Your task to perform on an android device: Open the clock app Image 0: 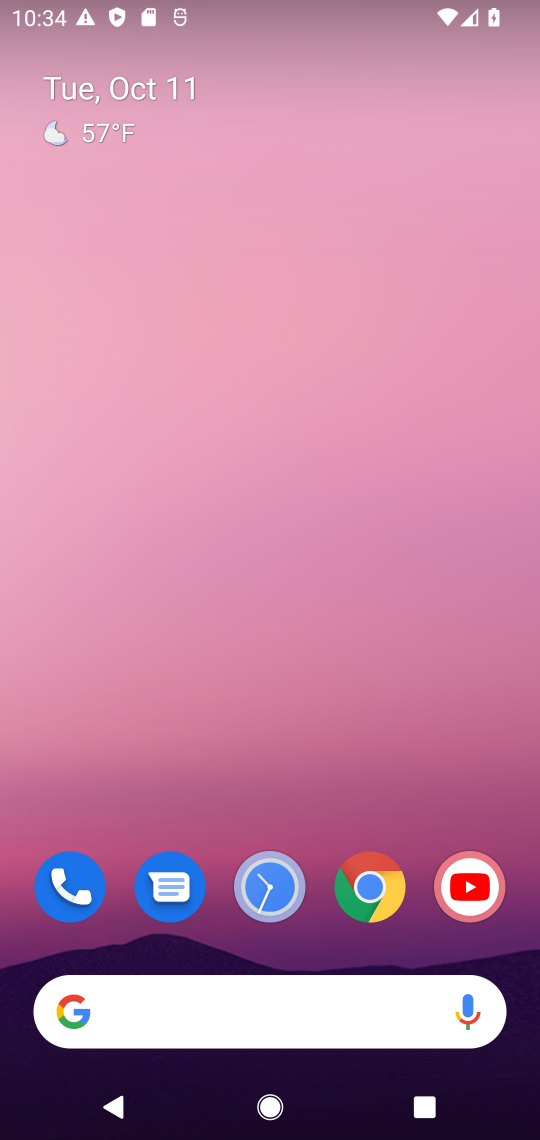
Step 0: press home button
Your task to perform on an android device: Open the clock app Image 1: 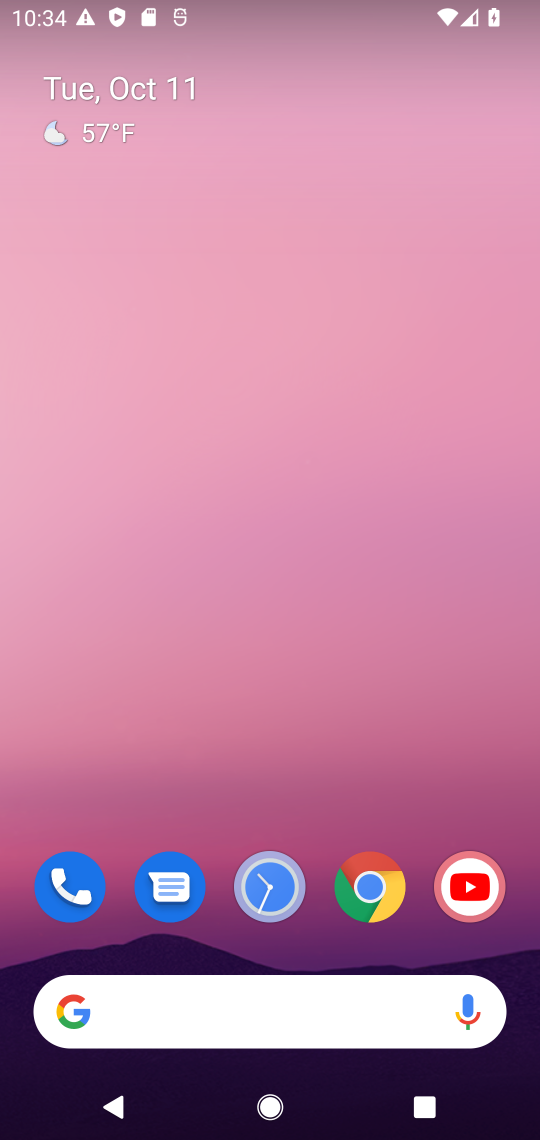
Step 1: click (378, 1023)
Your task to perform on an android device: Open the clock app Image 2: 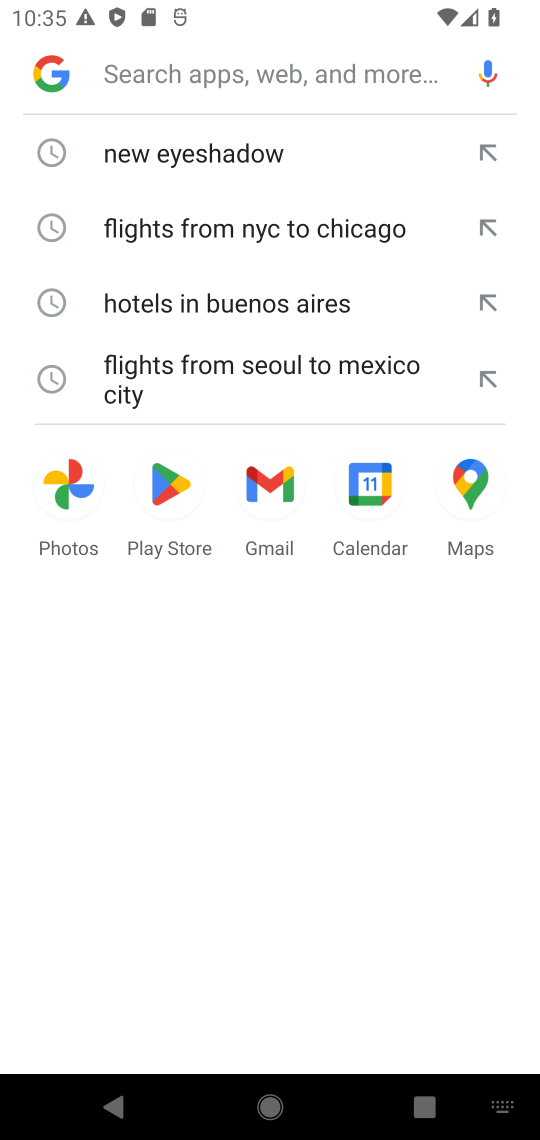
Step 2: press home button
Your task to perform on an android device: Open the clock app Image 3: 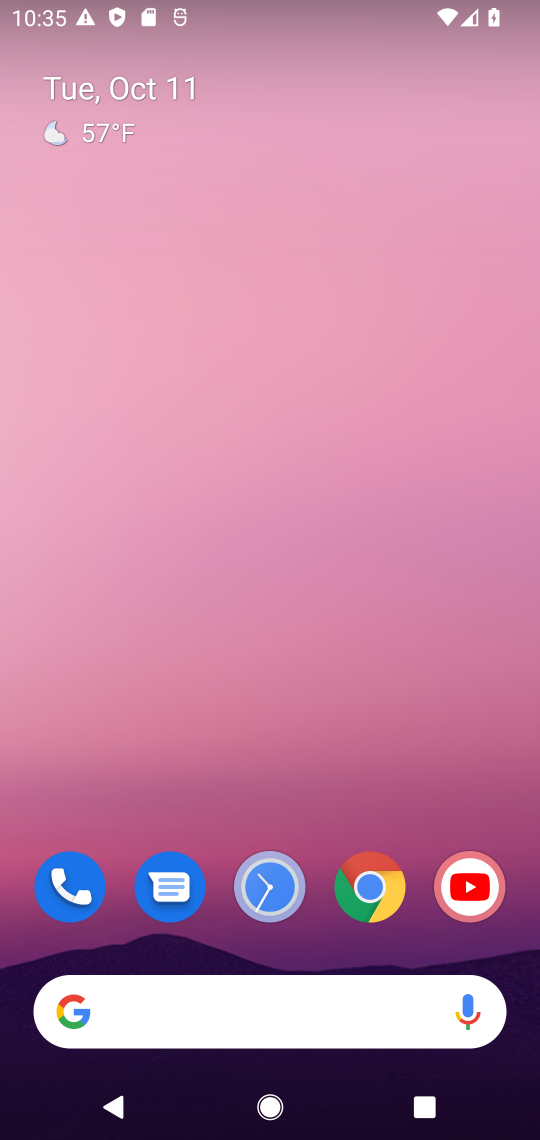
Step 3: drag from (490, 739) to (486, 74)
Your task to perform on an android device: Open the clock app Image 4: 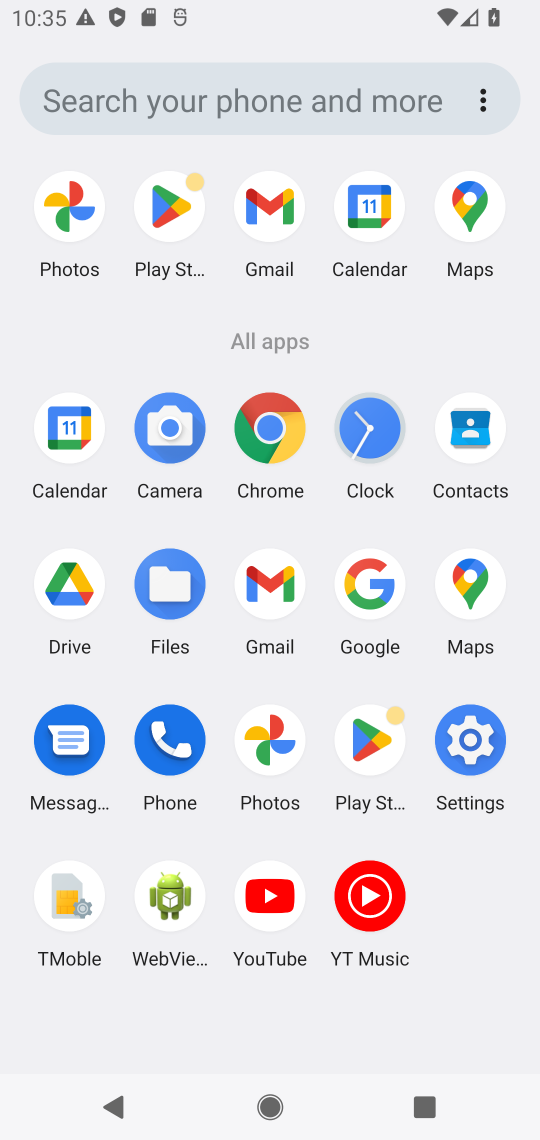
Step 4: click (348, 429)
Your task to perform on an android device: Open the clock app Image 5: 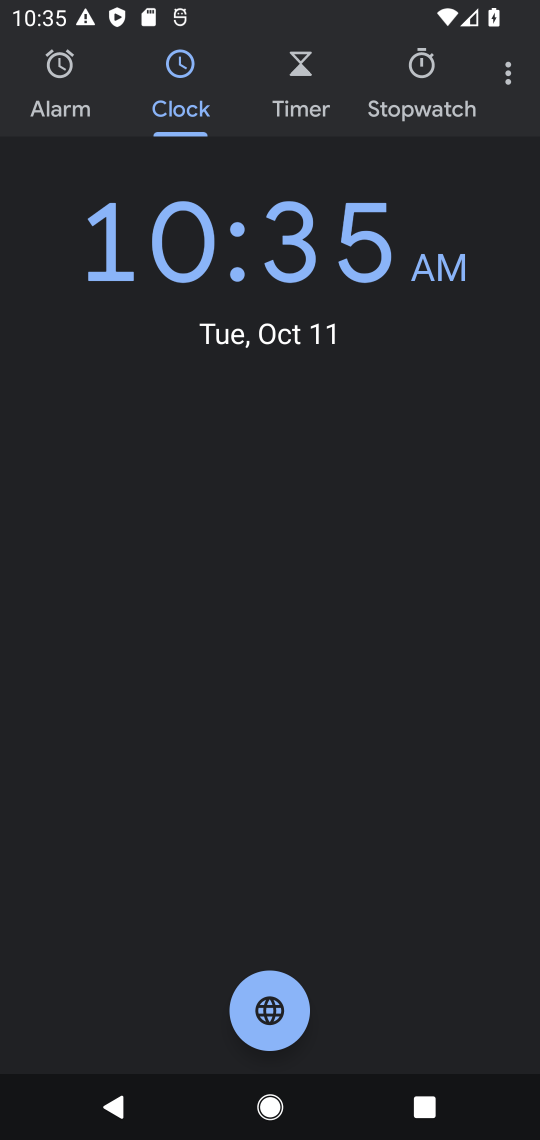
Step 5: task complete